Your task to perform on an android device: Open privacy settings Image 0: 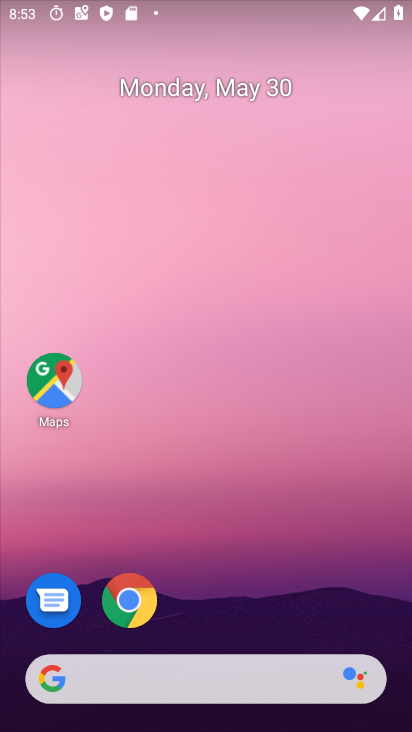
Step 0: drag from (286, 556) to (247, 30)
Your task to perform on an android device: Open privacy settings Image 1: 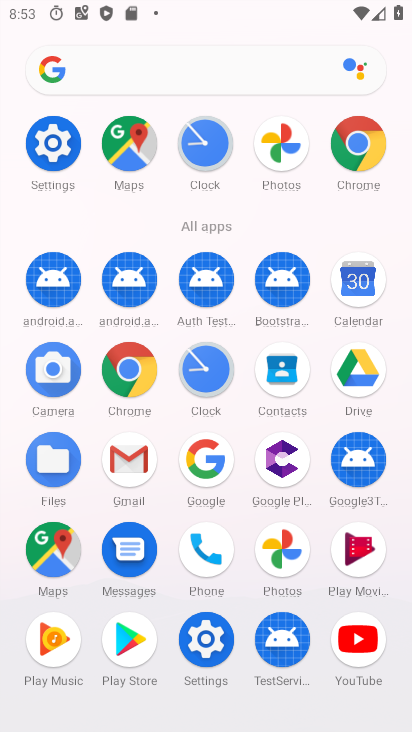
Step 1: drag from (10, 577) to (11, 249)
Your task to perform on an android device: Open privacy settings Image 2: 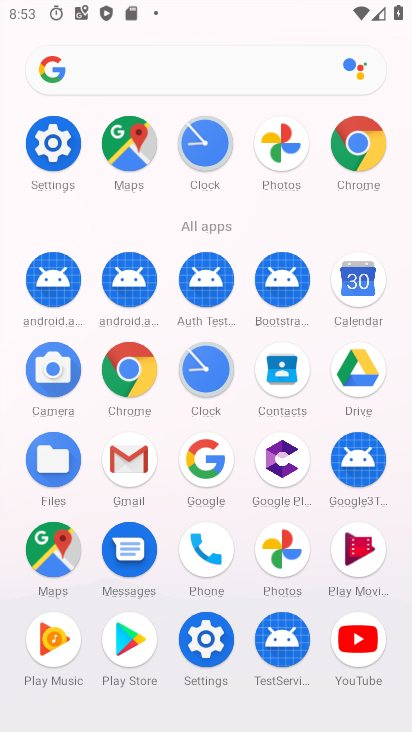
Step 2: click (131, 366)
Your task to perform on an android device: Open privacy settings Image 3: 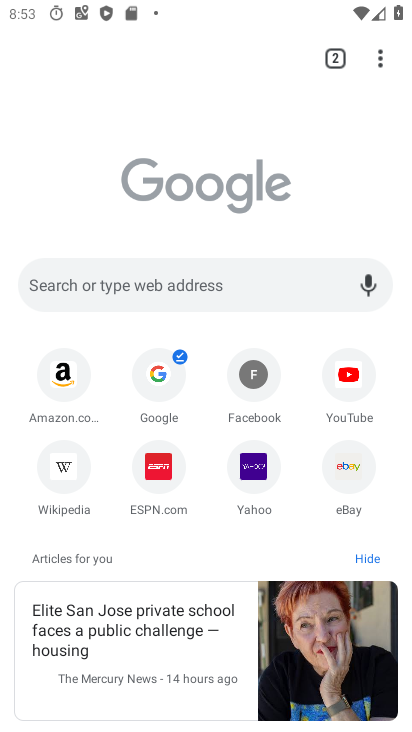
Step 3: drag from (381, 60) to (177, 499)
Your task to perform on an android device: Open privacy settings Image 4: 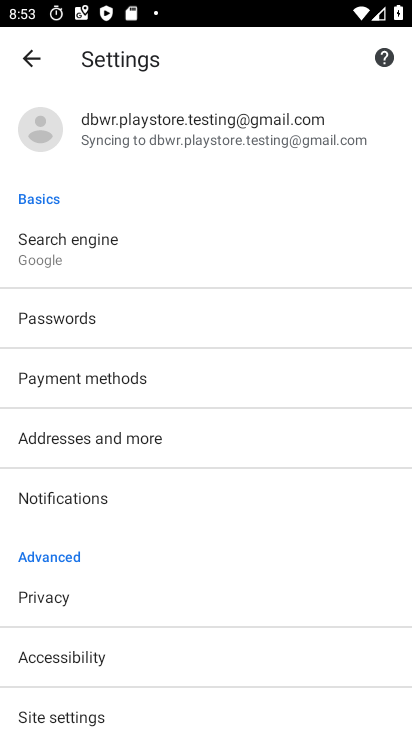
Step 4: click (55, 601)
Your task to perform on an android device: Open privacy settings Image 5: 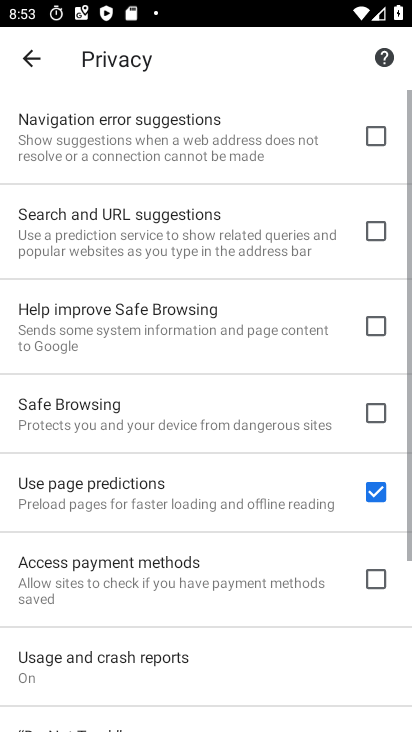
Step 5: task complete